Your task to perform on an android device: Open Chrome and go to settings Image 0: 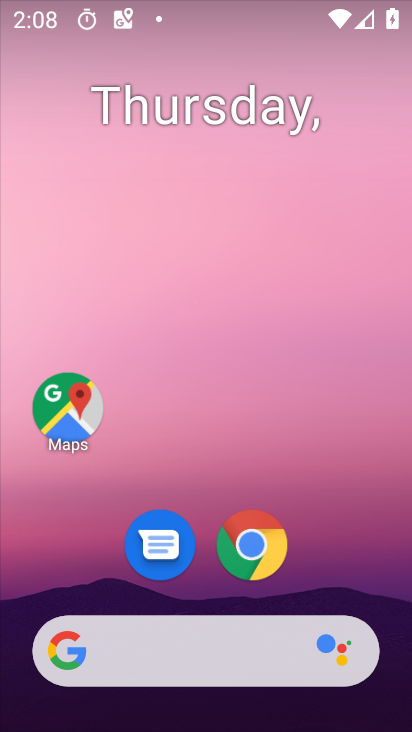
Step 0: click (250, 541)
Your task to perform on an android device: Open Chrome and go to settings Image 1: 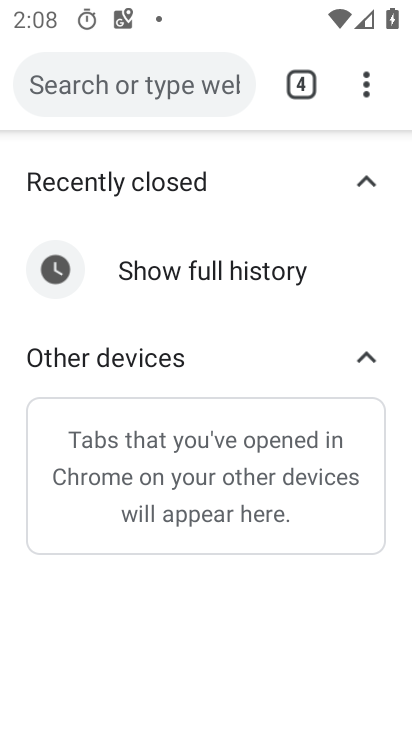
Step 1: click (364, 93)
Your task to perform on an android device: Open Chrome and go to settings Image 2: 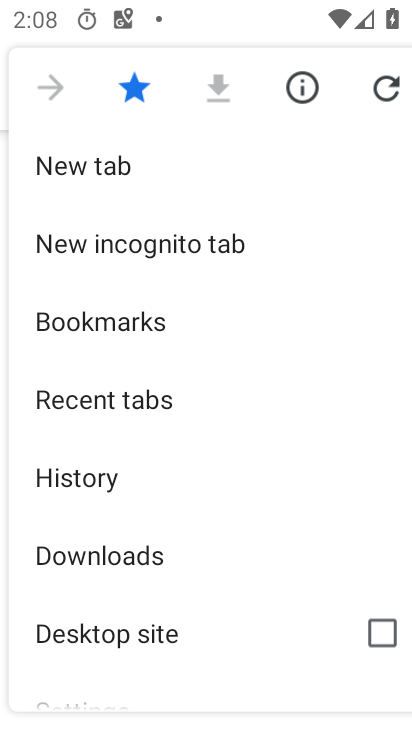
Step 2: drag from (98, 659) to (178, 291)
Your task to perform on an android device: Open Chrome and go to settings Image 3: 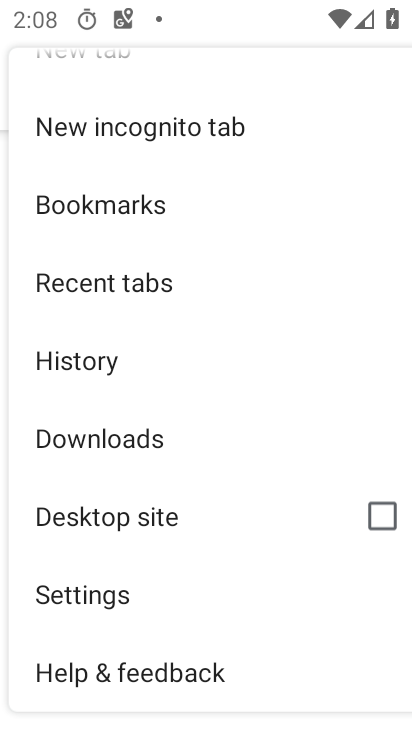
Step 3: click (91, 592)
Your task to perform on an android device: Open Chrome and go to settings Image 4: 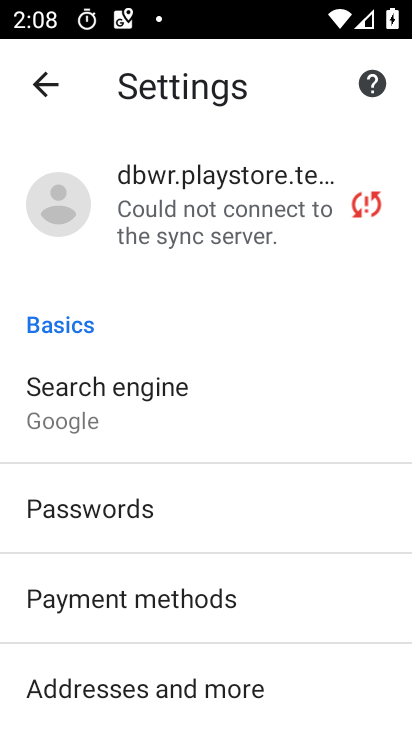
Step 4: task complete